Your task to perform on an android device: Open display settings Image 0: 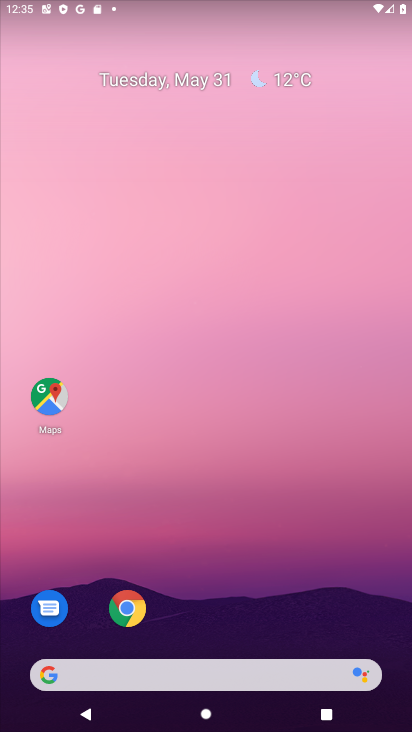
Step 0: drag from (249, 613) to (258, 127)
Your task to perform on an android device: Open display settings Image 1: 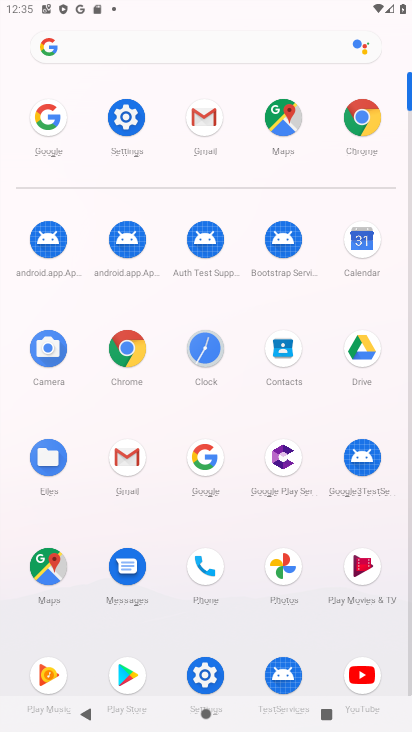
Step 1: click (129, 115)
Your task to perform on an android device: Open display settings Image 2: 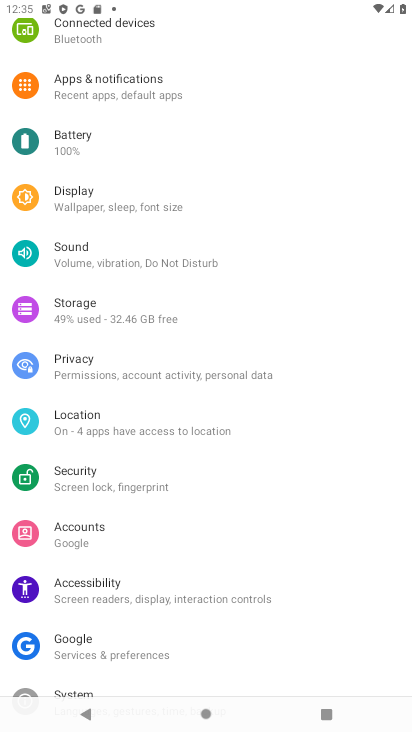
Step 2: click (132, 199)
Your task to perform on an android device: Open display settings Image 3: 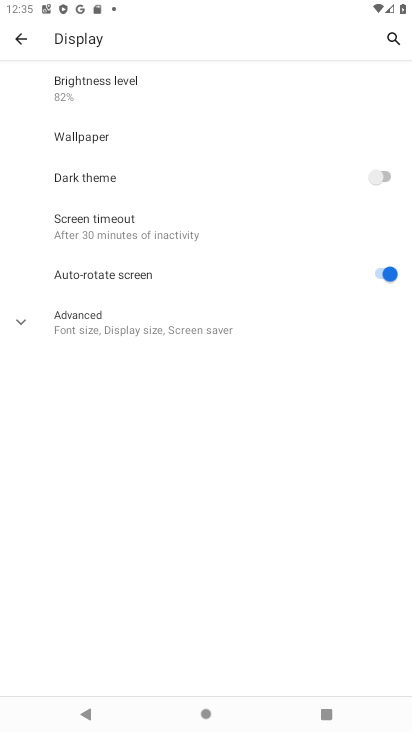
Step 3: task complete